Your task to perform on an android device: Is it going to rain tomorrow? Image 0: 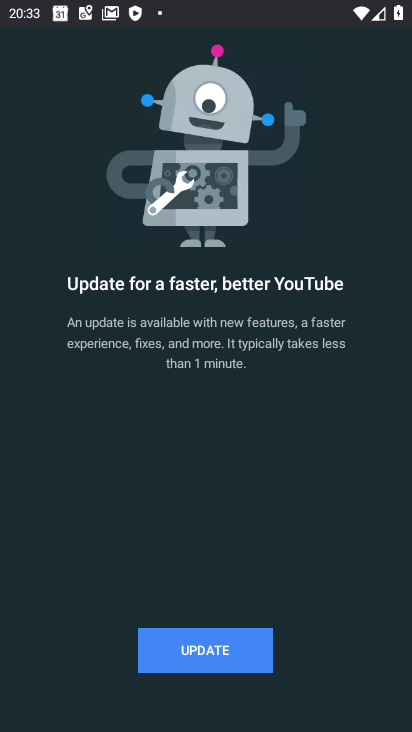
Step 0: press home button
Your task to perform on an android device: Is it going to rain tomorrow? Image 1: 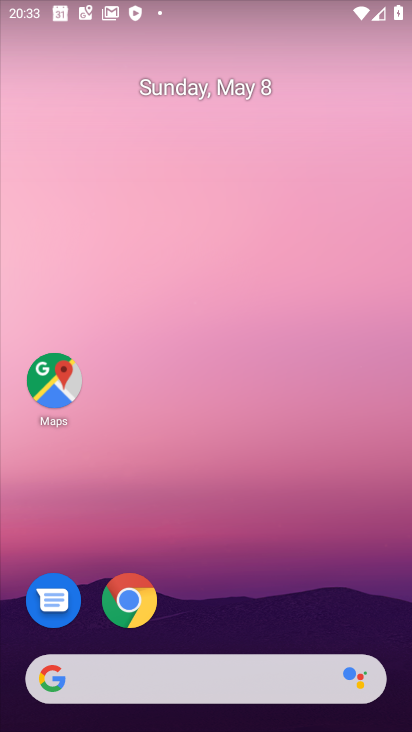
Step 1: drag from (231, 710) to (162, 265)
Your task to perform on an android device: Is it going to rain tomorrow? Image 2: 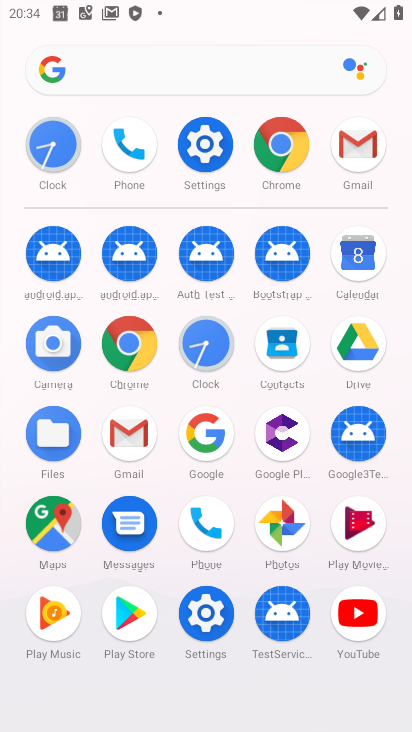
Step 2: click (137, 79)
Your task to perform on an android device: Is it going to rain tomorrow? Image 3: 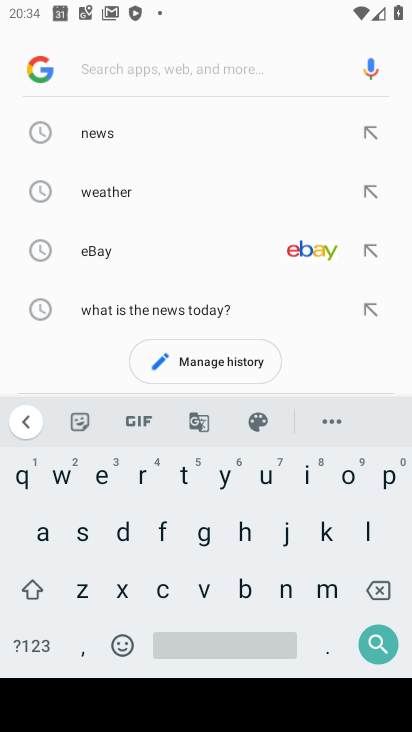
Step 3: click (116, 186)
Your task to perform on an android device: Is it going to rain tomorrow? Image 4: 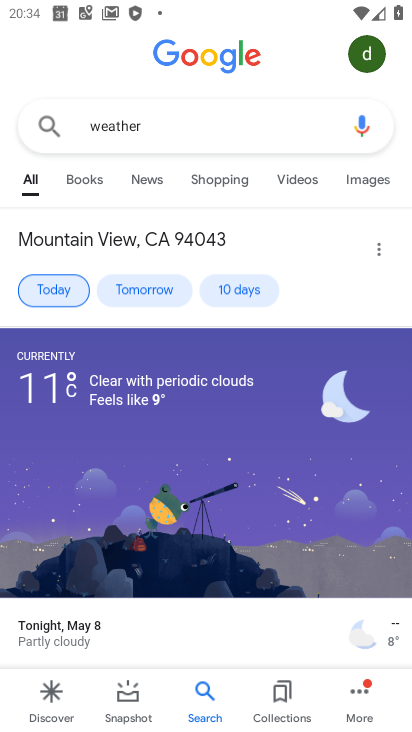
Step 4: click (130, 293)
Your task to perform on an android device: Is it going to rain tomorrow? Image 5: 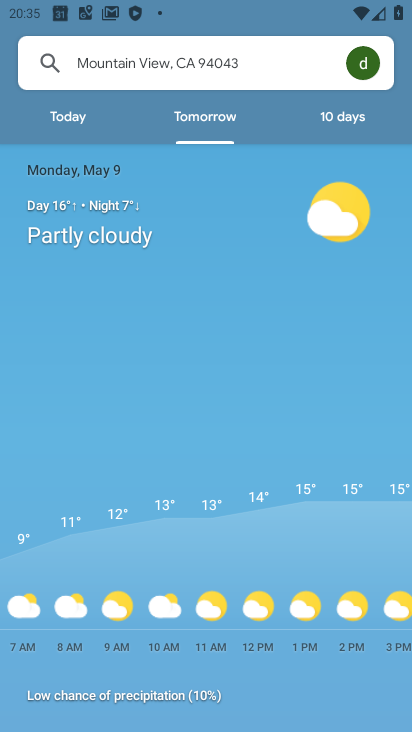
Step 5: task complete